Your task to perform on an android device: Search for seafood restaurants on Google Maps Image 0: 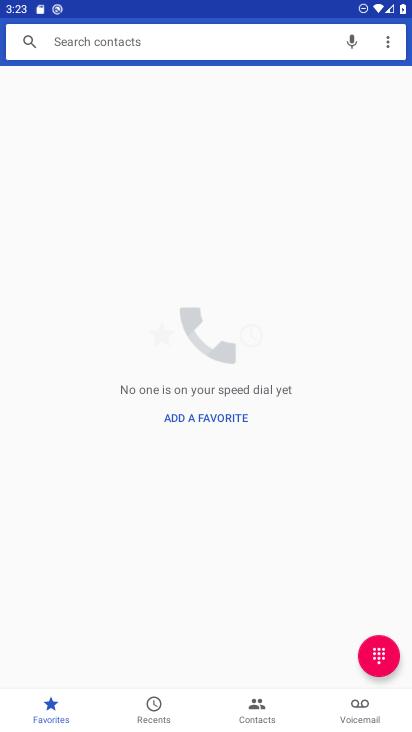
Step 0: press home button
Your task to perform on an android device: Search for seafood restaurants on Google Maps Image 1: 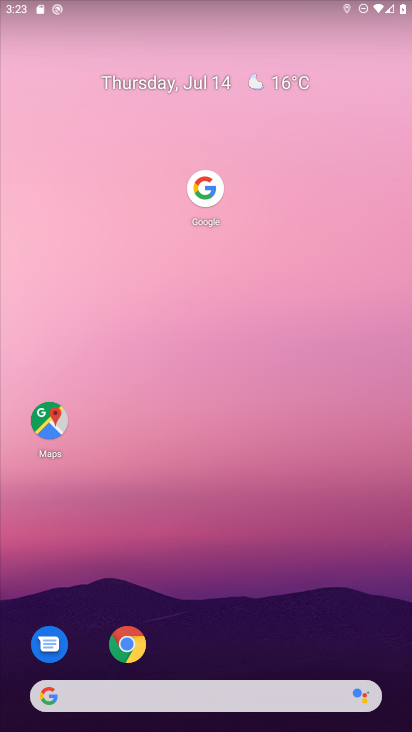
Step 1: click (46, 435)
Your task to perform on an android device: Search for seafood restaurants on Google Maps Image 2: 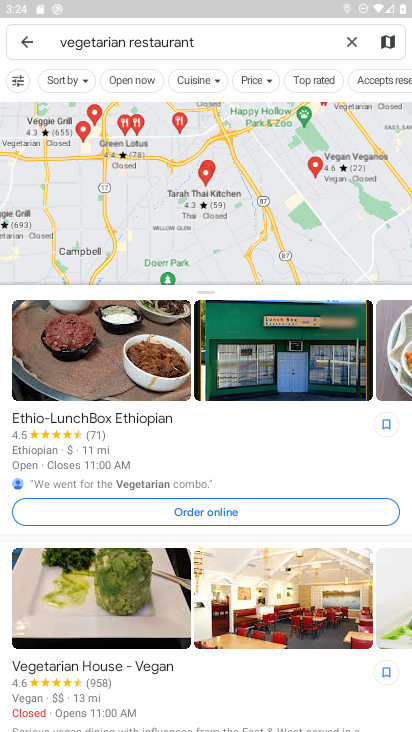
Step 2: click (354, 35)
Your task to perform on an android device: Search for seafood restaurants on Google Maps Image 3: 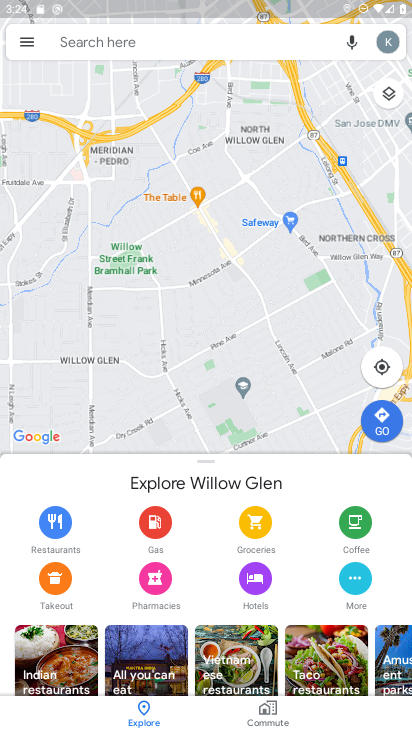
Step 3: click (158, 52)
Your task to perform on an android device: Search for seafood restaurants on Google Maps Image 4: 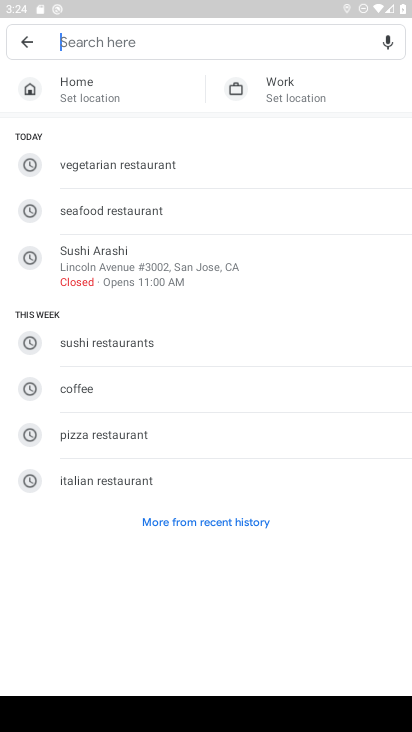
Step 4: type "seafood restaurants"
Your task to perform on an android device: Search for seafood restaurants on Google Maps Image 5: 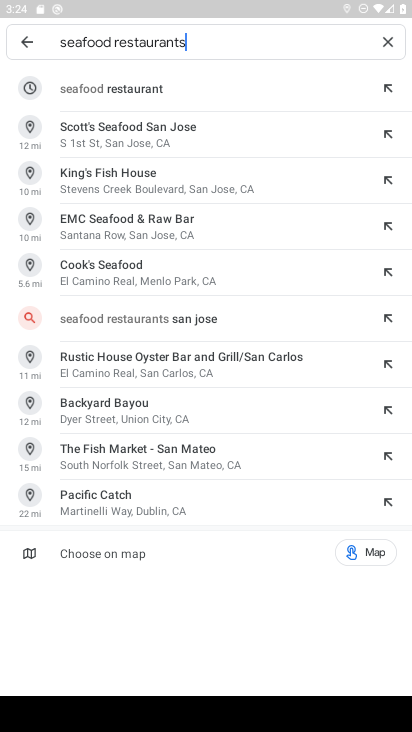
Step 5: click (140, 94)
Your task to perform on an android device: Search for seafood restaurants on Google Maps Image 6: 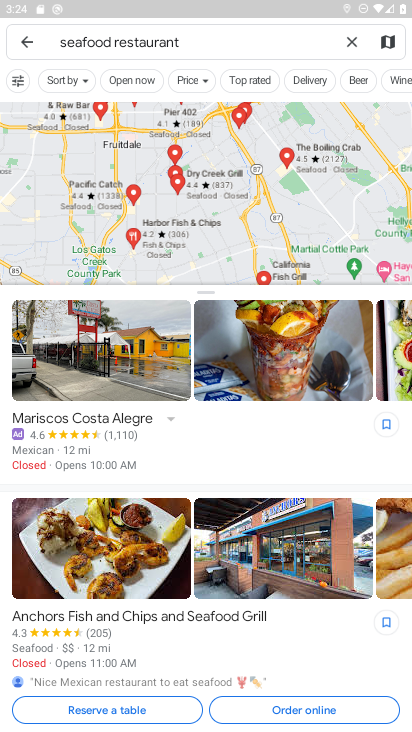
Step 6: task complete